Your task to perform on an android device: Is it going to rain this weekend? Image 0: 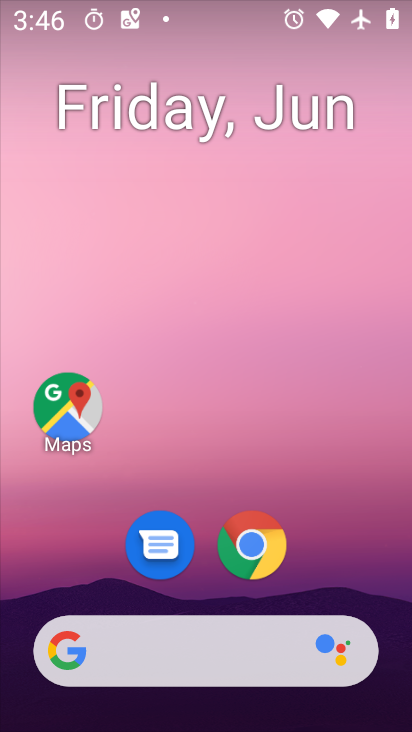
Step 0: click (130, 660)
Your task to perform on an android device: Is it going to rain this weekend? Image 1: 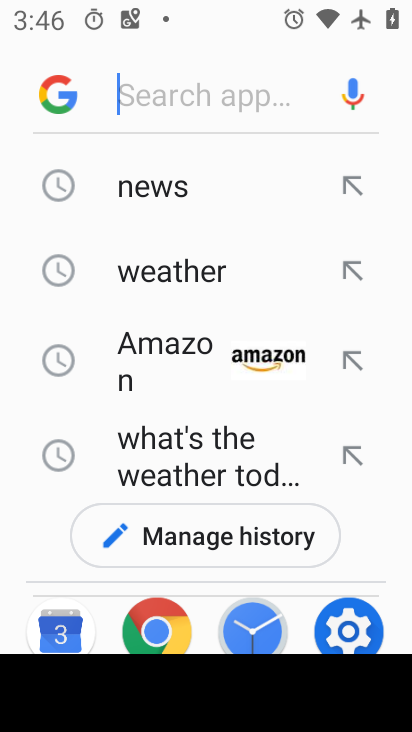
Step 1: type "is it going to rain this weekend"
Your task to perform on an android device: Is it going to rain this weekend? Image 2: 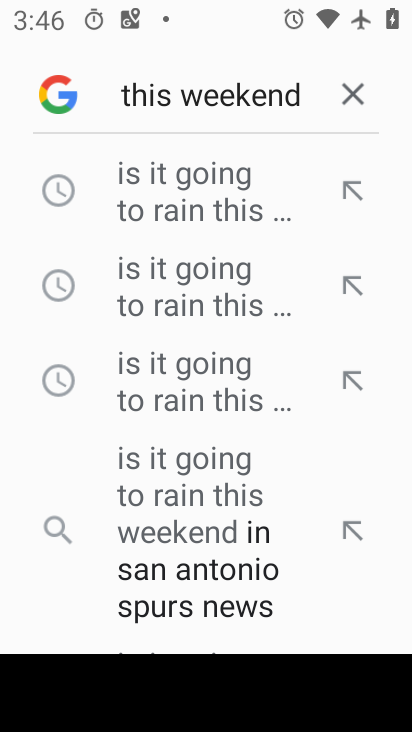
Step 2: click (133, 181)
Your task to perform on an android device: Is it going to rain this weekend? Image 3: 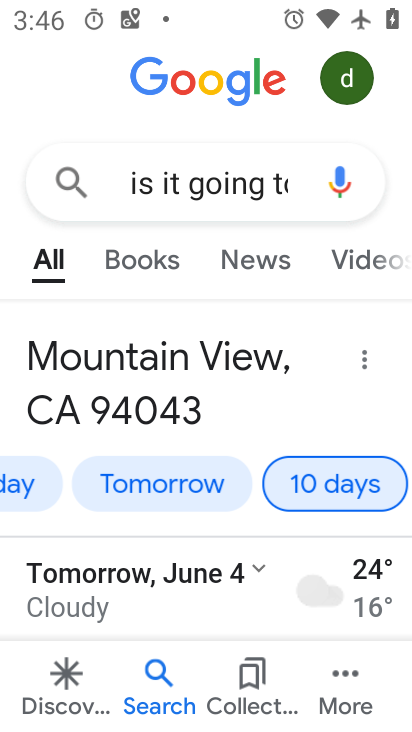
Step 3: task complete